Your task to perform on an android device: Open privacy settings Image 0: 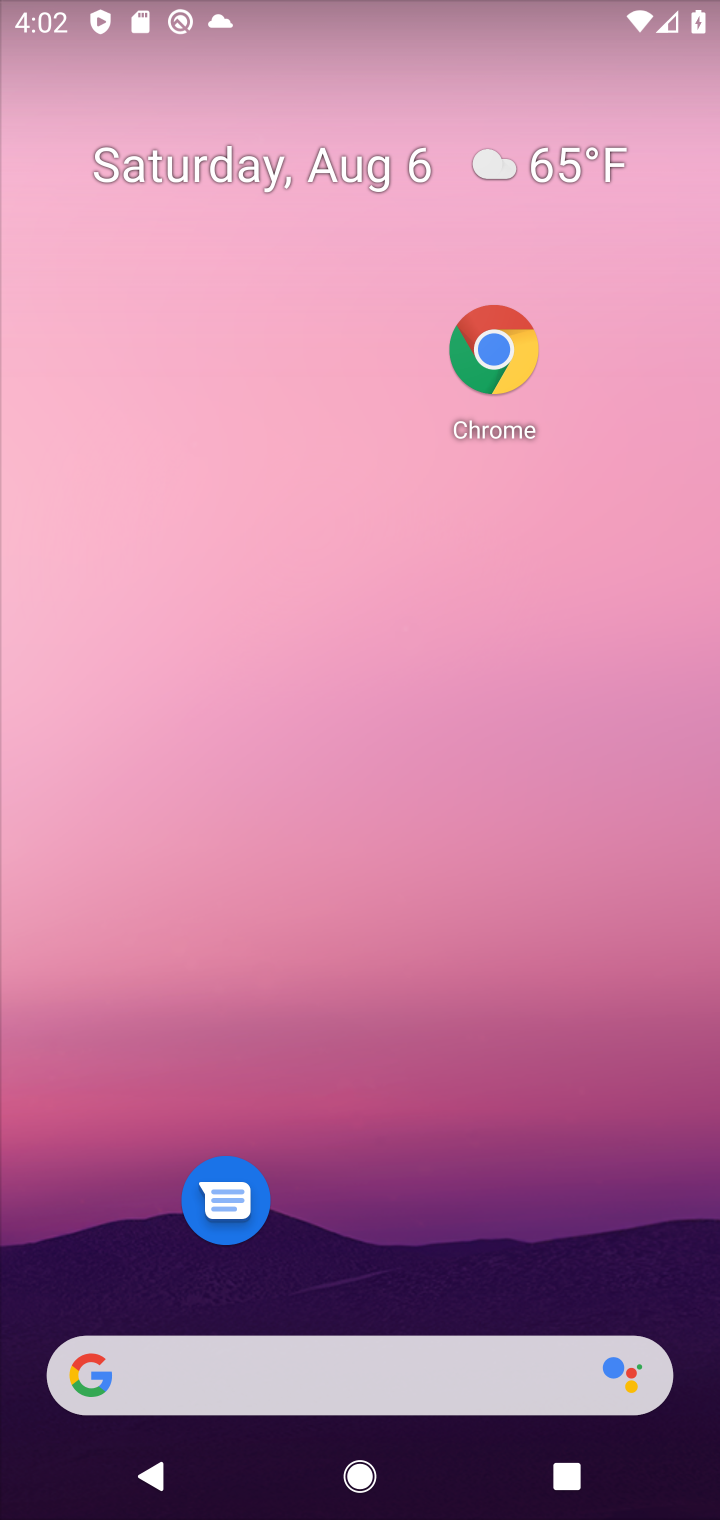
Step 0: drag from (392, 1318) to (397, 219)
Your task to perform on an android device: Open privacy settings Image 1: 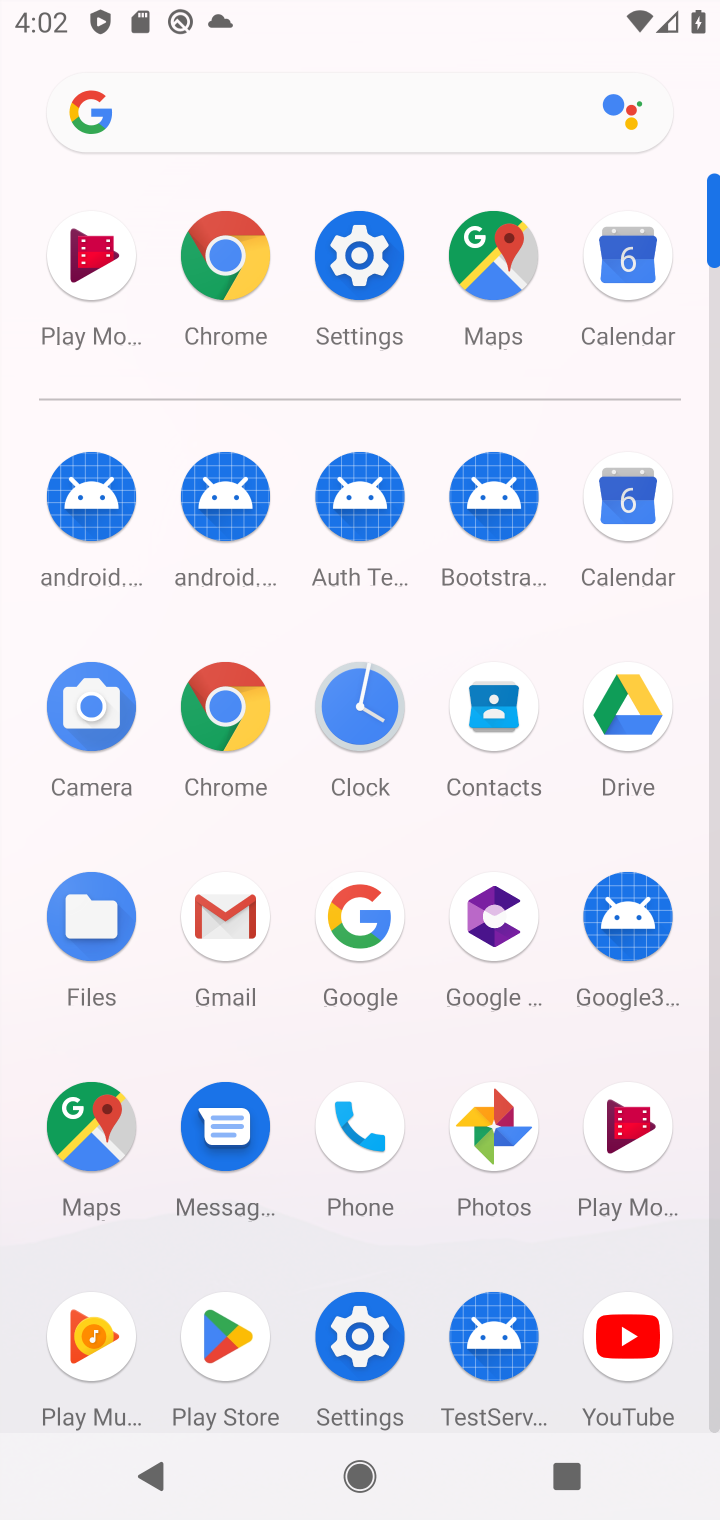
Step 1: click (386, 264)
Your task to perform on an android device: Open privacy settings Image 2: 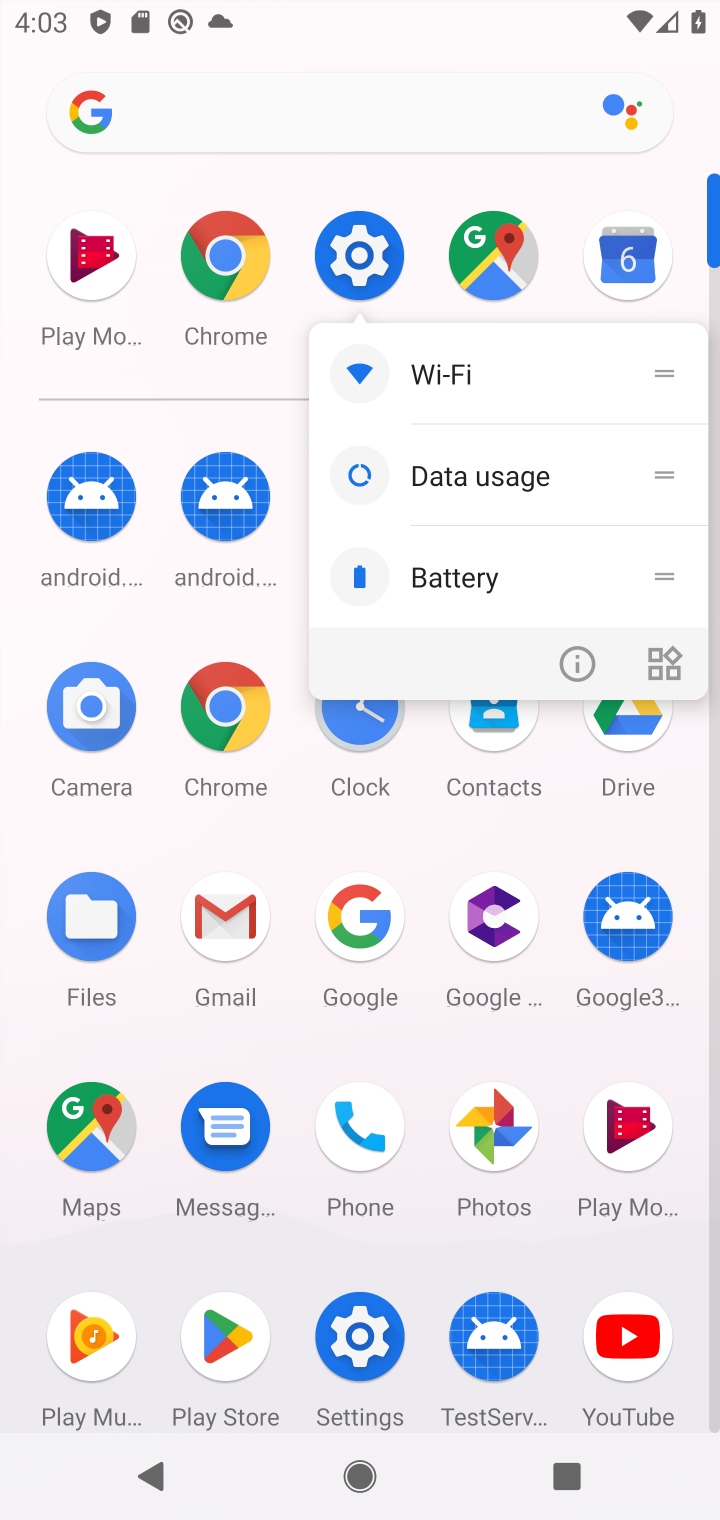
Step 2: click (328, 256)
Your task to perform on an android device: Open privacy settings Image 3: 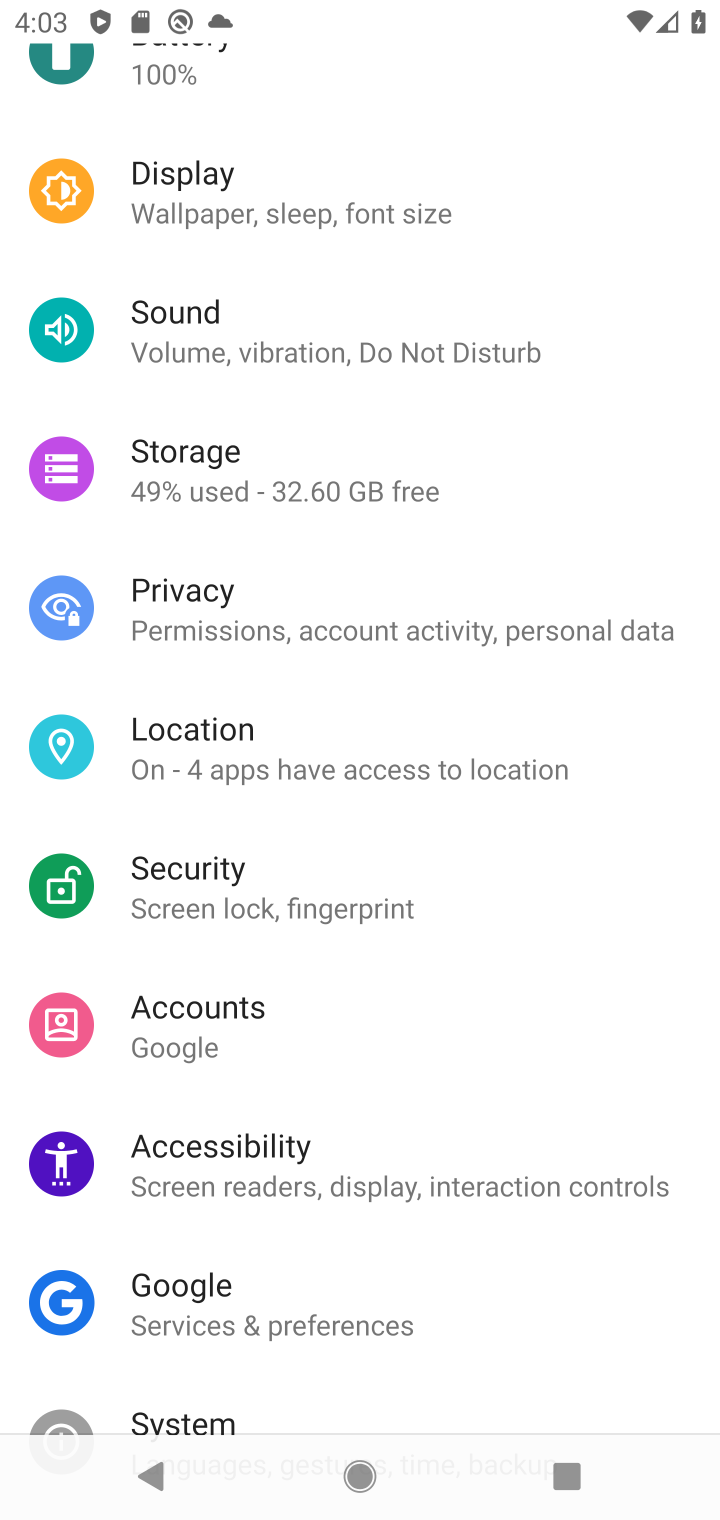
Step 3: click (242, 613)
Your task to perform on an android device: Open privacy settings Image 4: 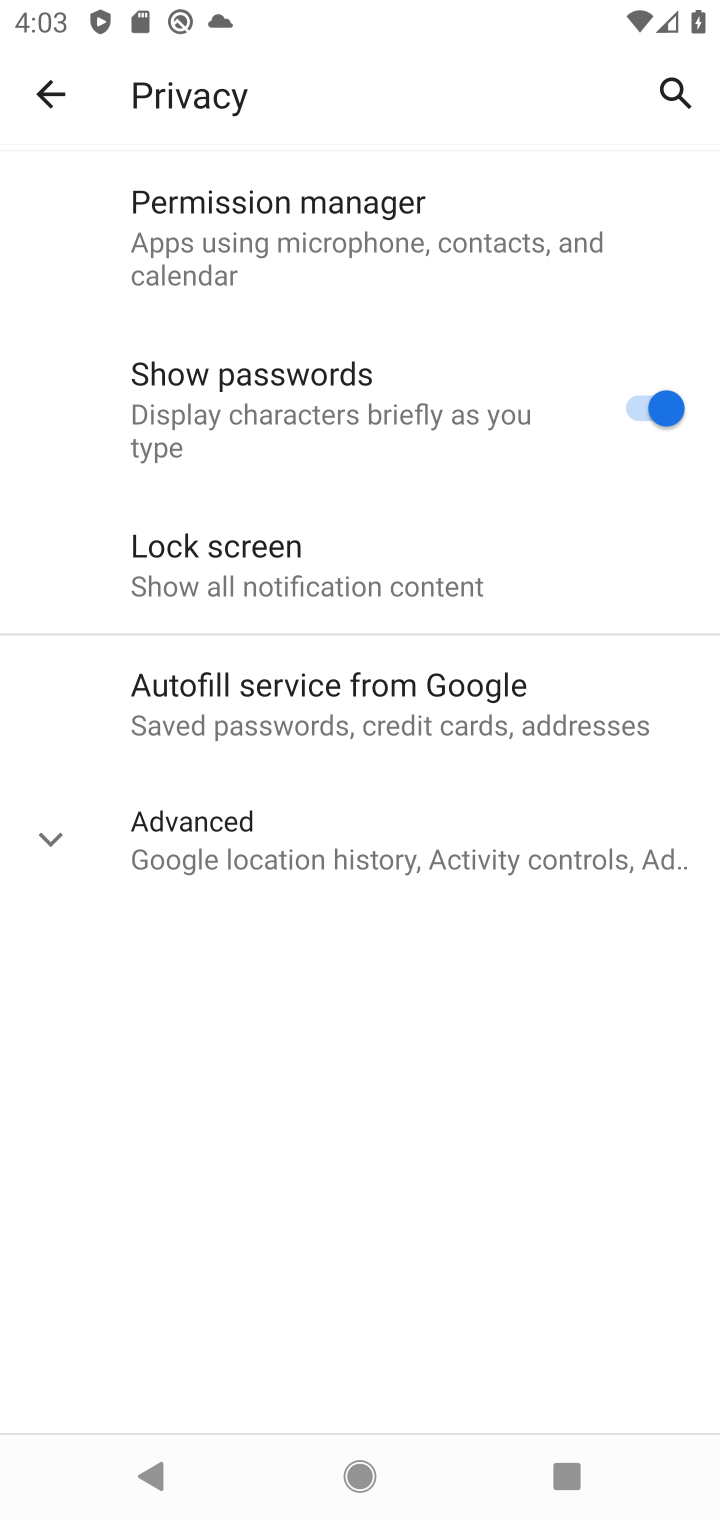
Step 4: click (173, 856)
Your task to perform on an android device: Open privacy settings Image 5: 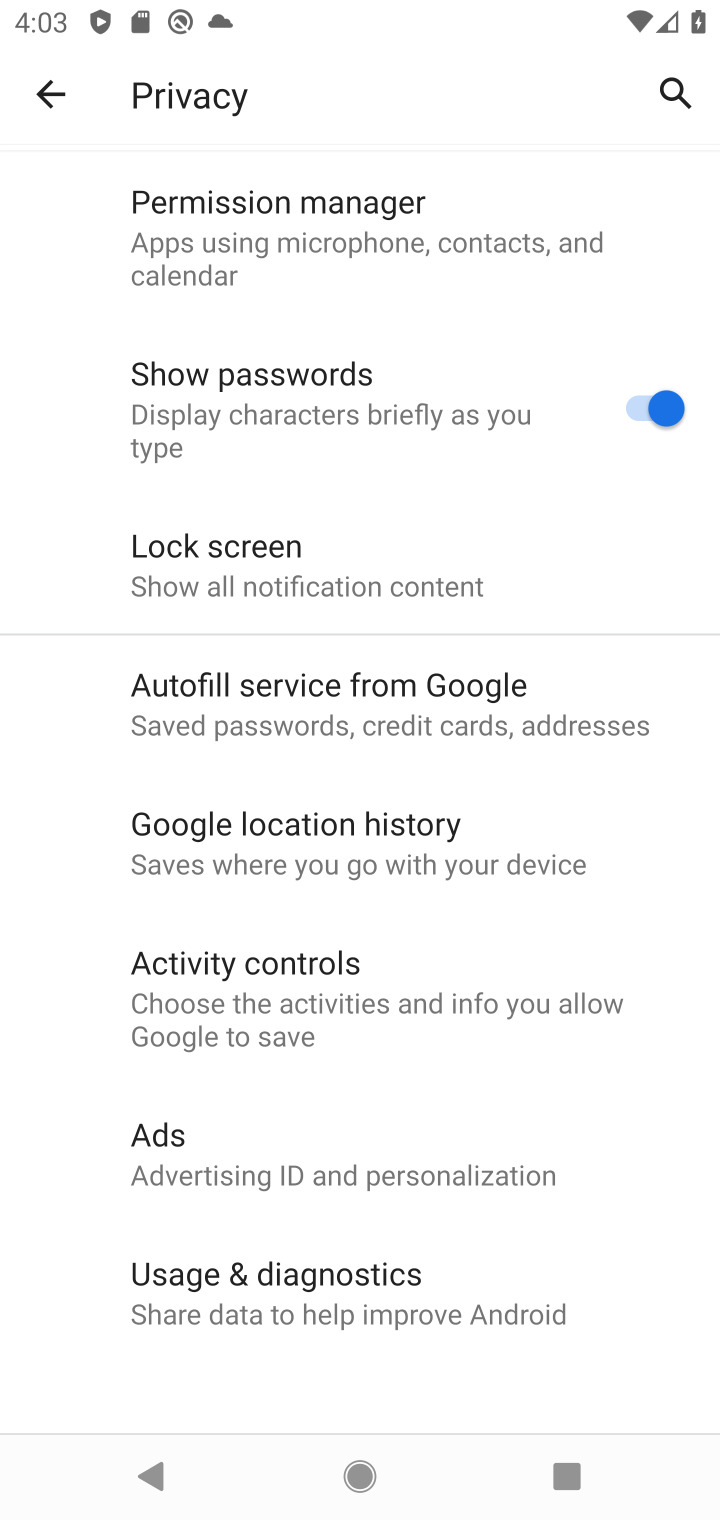
Step 5: task complete